Your task to perform on an android device: Show me the alarms in the clock app Image 0: 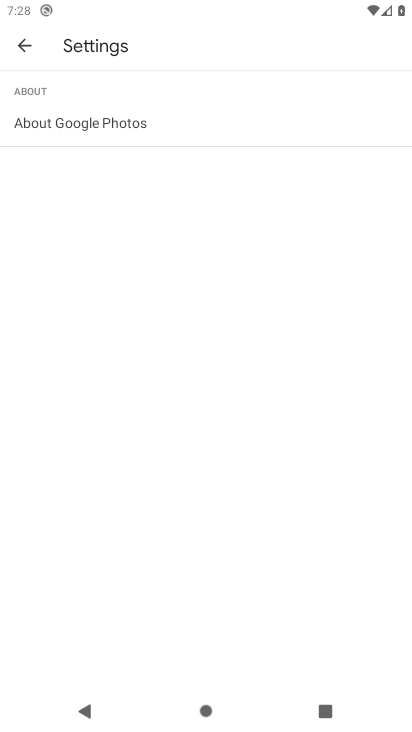
Step 0: press home button
Your task to perform on an android device: Show me the alarms in the clock app Image 1: 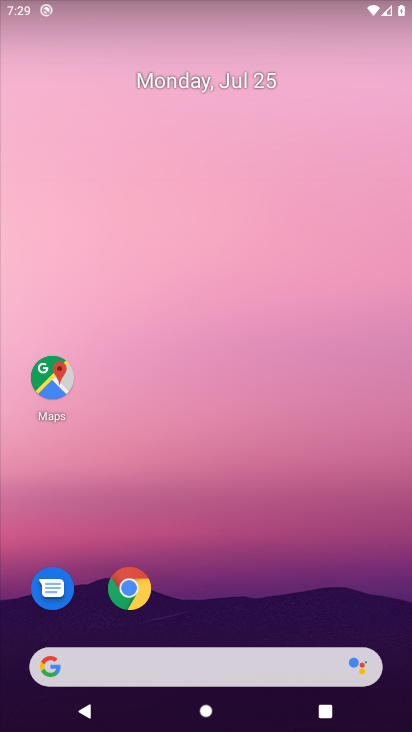
Step 1: drag from (307, 479) to (333, 213)
Your task to perform on an android device: Show me the alarms in the clock app Image 2: 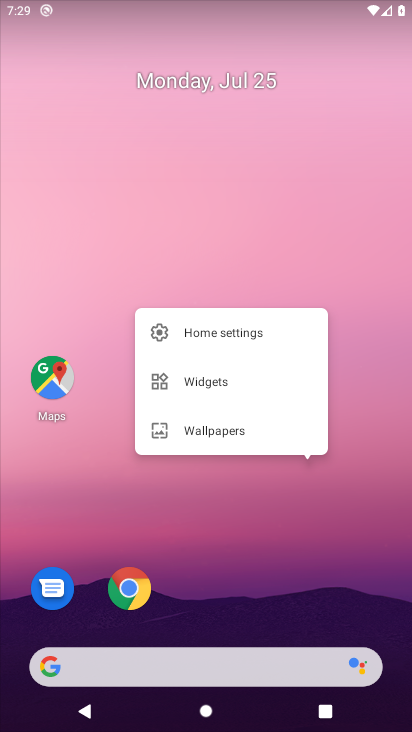
Step 2: click (354, 337)
Your task to perform on an android device: Show me the alarms in the clock app Image 3: 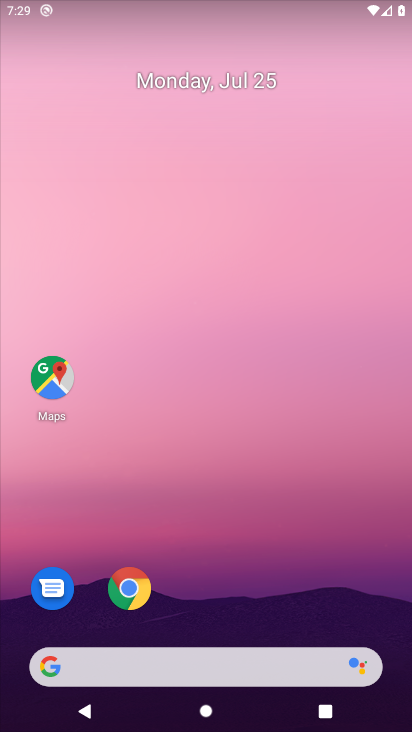
Step 3: drag from (265, 485) to (266, 282)
Your task to perform on an android device: Show me the alarms in the clock app Image 4: 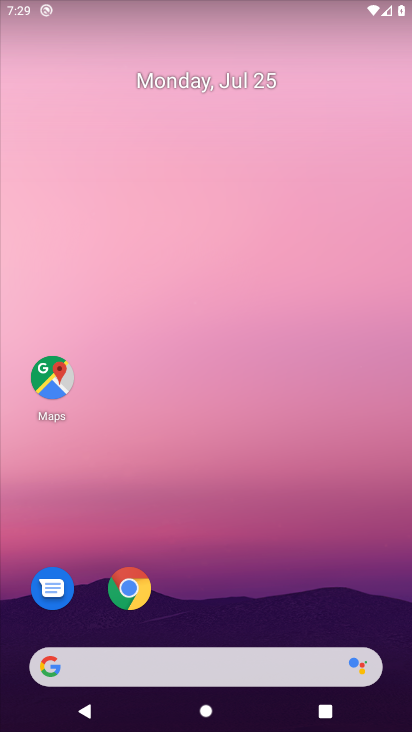
Step 4: drag from (264, 400) to (250, 140)
Your task to perform on an android device: Show me the alarms in the clock app Image 5: 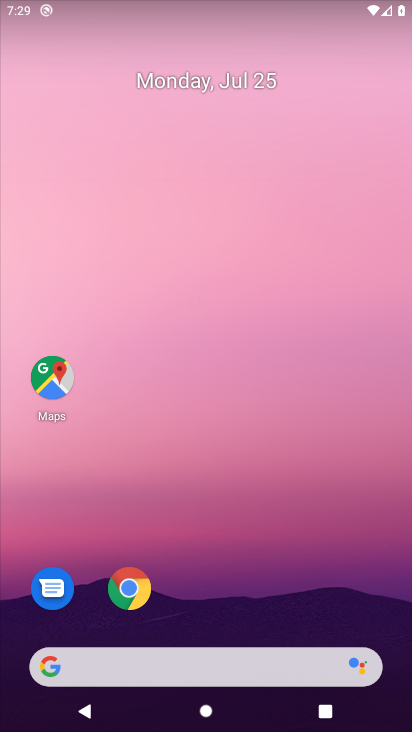
Step 5: drag from (237, 407) to (237, 195)
Your task to perform on an android device: Show me the alarms in the clock app Image 6: 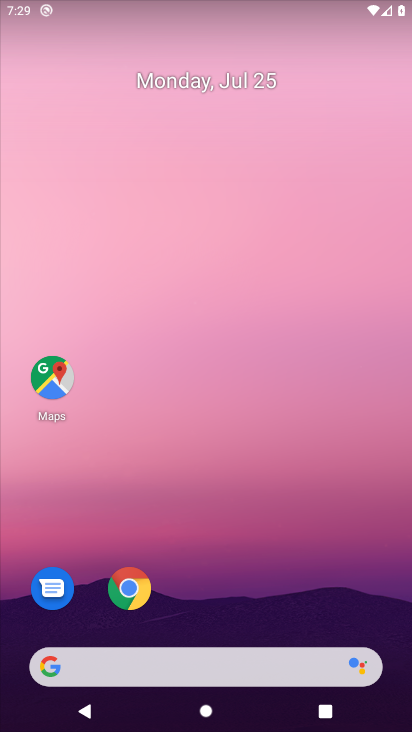
Step 6: drag from (254, 526) to (267, 277)
Your task to perform on an android device: Show me the alarms in the clock app Image 7: 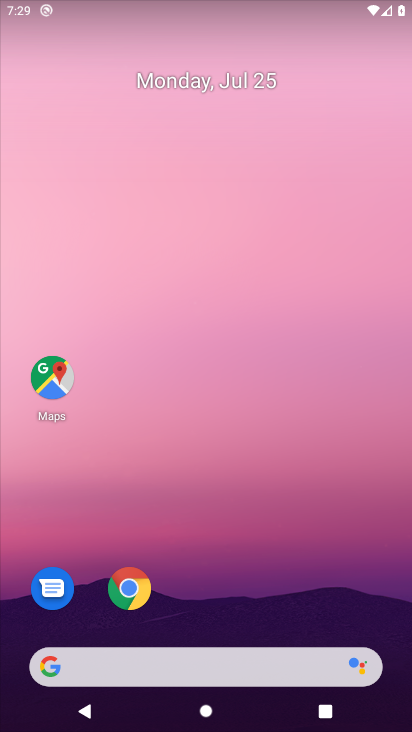
Step 7: drag from (241, 619) to (277, 257)
Your task to perform on an android device: Show me the alarms in the clock app Image 8: 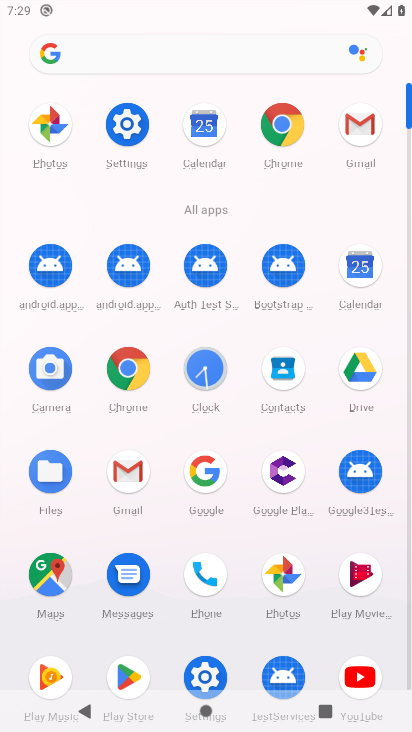
Step 8: click (205, 372)
Your task to perform on an android device: Show me the alarms in the clock app Image 9: 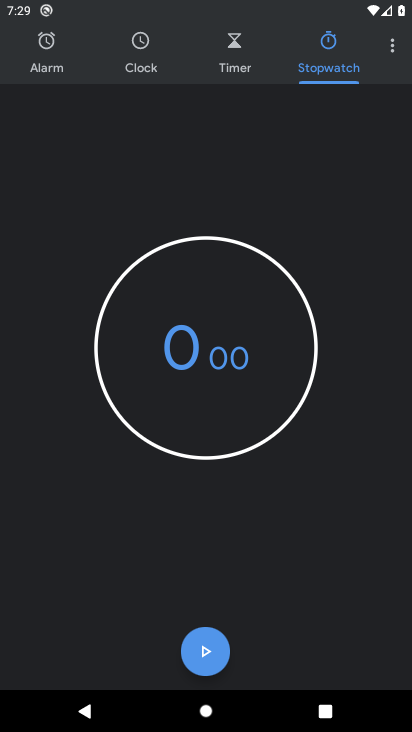
Step 9: click (144, 56)
Your task to perform on an android device: Show me the alarms in the clock app Image 10: 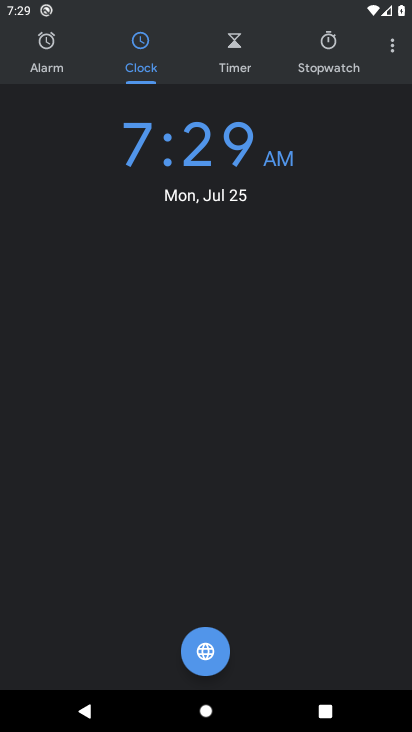
Step 10: task complete